Your task to perform on an android device: toggle location history Image 0: 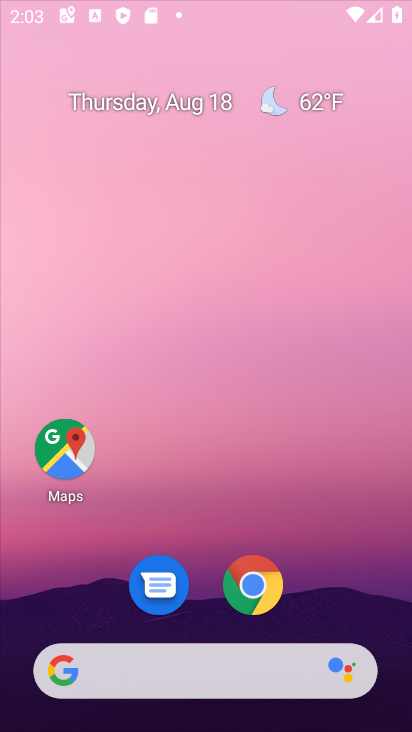
Step 0: press home button
Your task to perform on an android device: toggle location history Image 1: 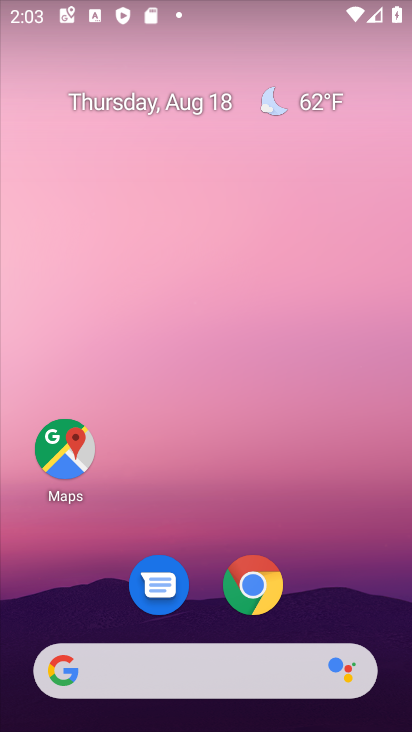
Step 1: drag from (320, 555) to (349, 28)
Your task to perform on an android device: toggle location history Image 2: 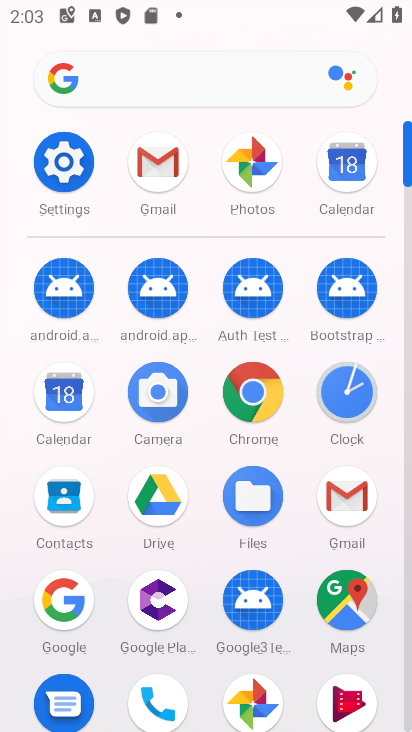
Step 2: click (64, 165)
Your task to perform on an android device: toggle location history Image 3: 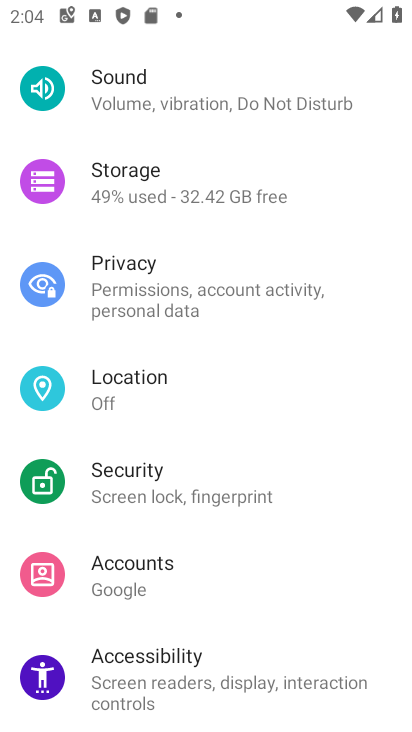
Step 3: click (179, 382)
Your task to perform on an android device: toggle location history Image 4: 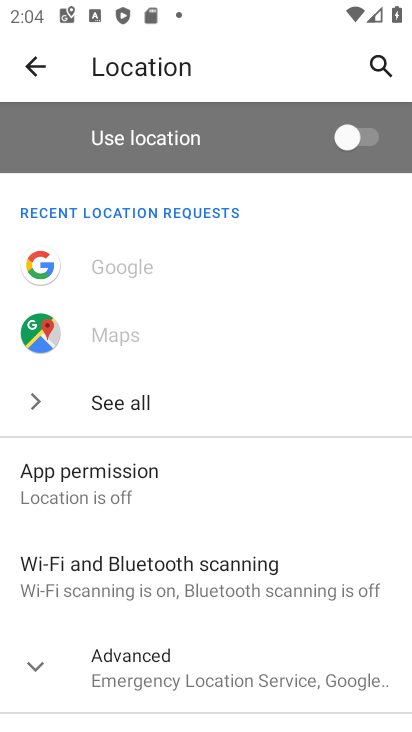
Step 4: drag from (230, 456) to (266, 121)
Your task to perform on an android device: toggle location history Image 5: 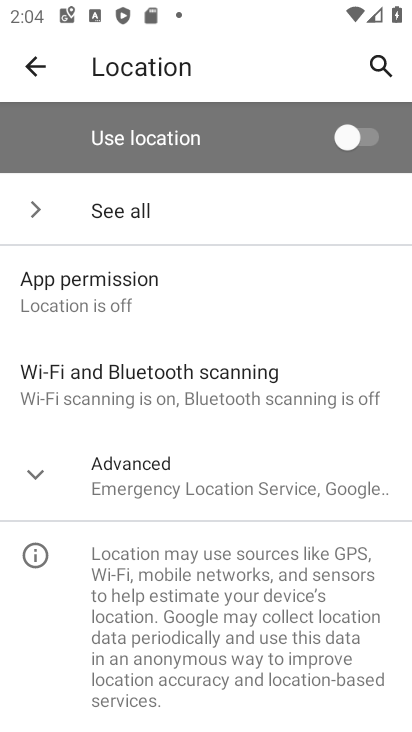
Step 5: click (36, 471)
Your task to perform on an android device: toggle location history Image 6: 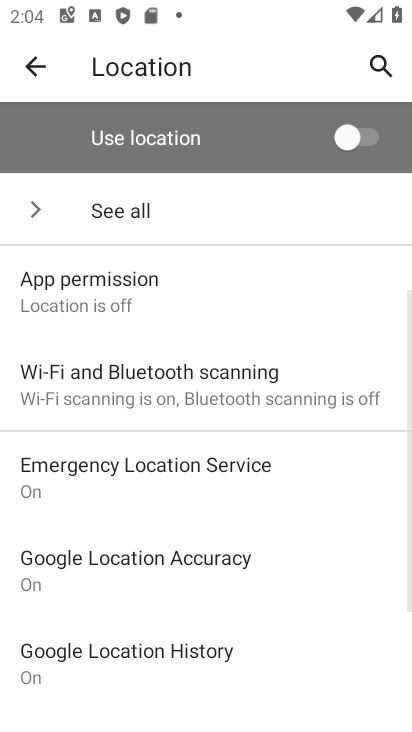
Step 6: drag from (200, 517) to (194, 314)
Your task to perform on an android device: toggle location history Image 7: 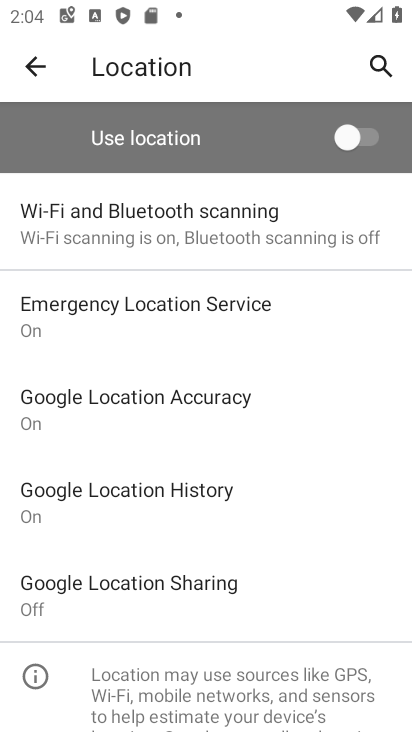
Step 7: click (189, 503)
Your task to perform on an android device: toggle location history Image 8: 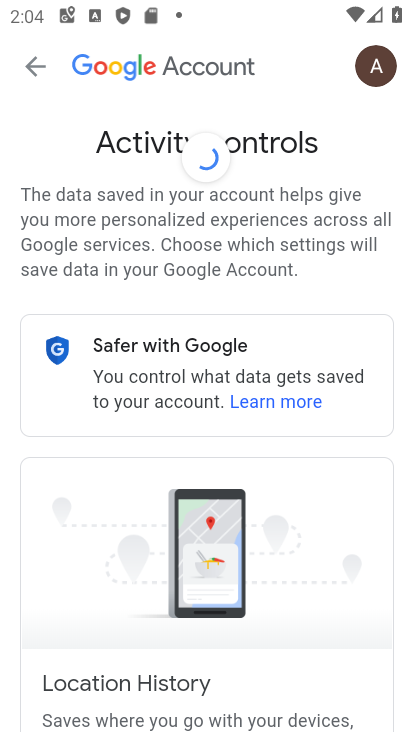
Step 8: drag from (245, 525) to (273, 148)
Your task to perform on an android device: toggle location history Image 9: 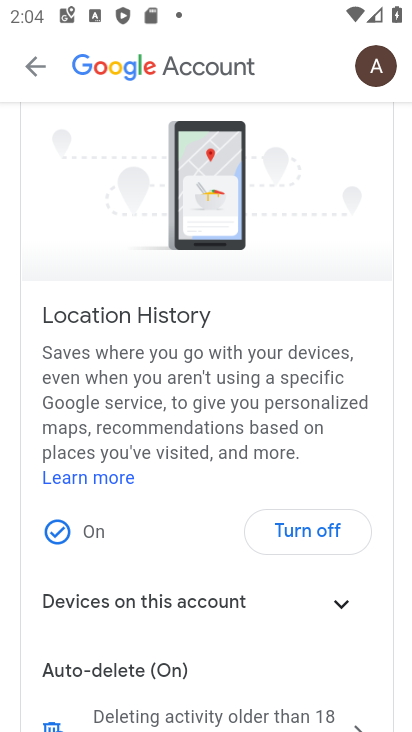
Step 9: click (319, 528)
Your task to perform on an android device: toggle location history Image 10: 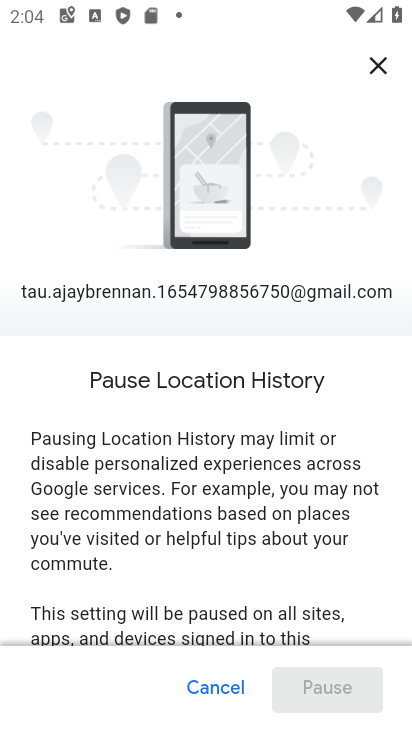
Step 10: drag from (323, 562) to (364, 52)
Your task to perform on an android device: toggle location history Image 11: 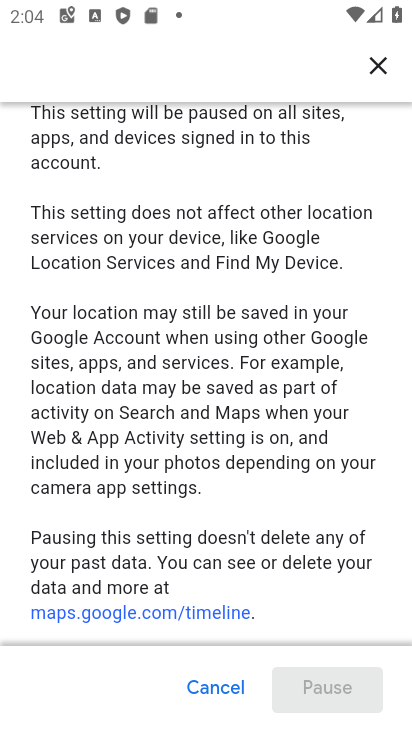
Step 11: drag from (327, 529) to (304, 127)
Your task to perform on an android device: toggle location history Image 12: 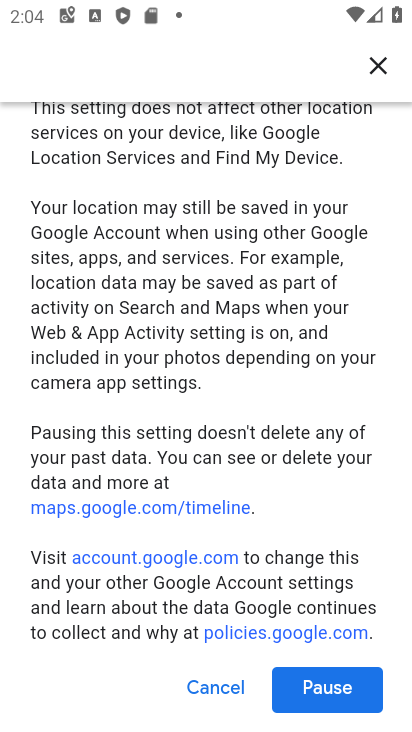
Step 12: click (299, 693)
Your task to perform on an android device: toggle location history Image 13: 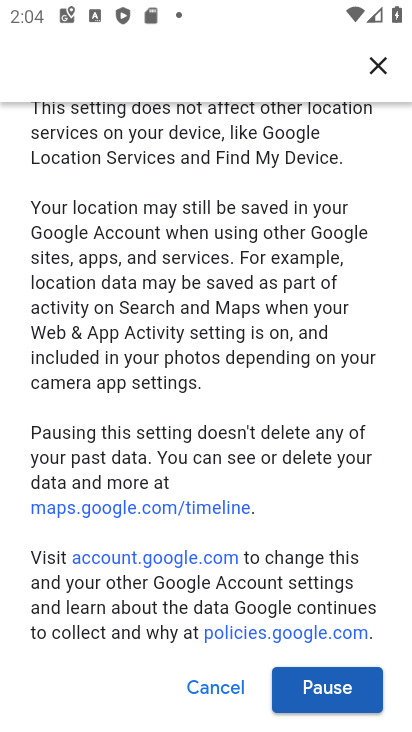
Step 13: click (350, 690)
Your task to perform on an android device: toggle location history Image 14: 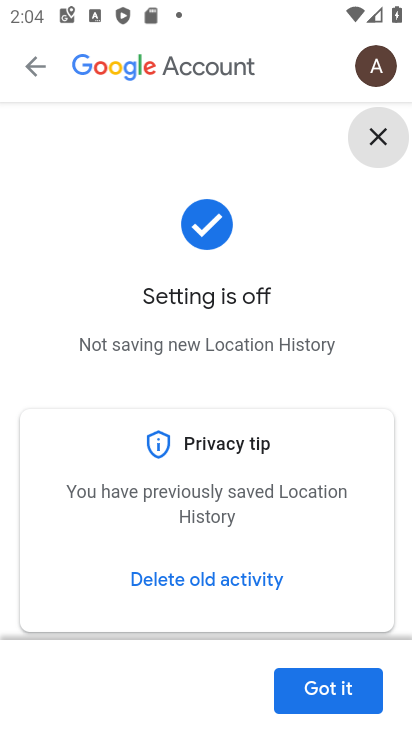
Step 14: click (328, 689)
Your task to perform on an android device: toggle location history Image 15: 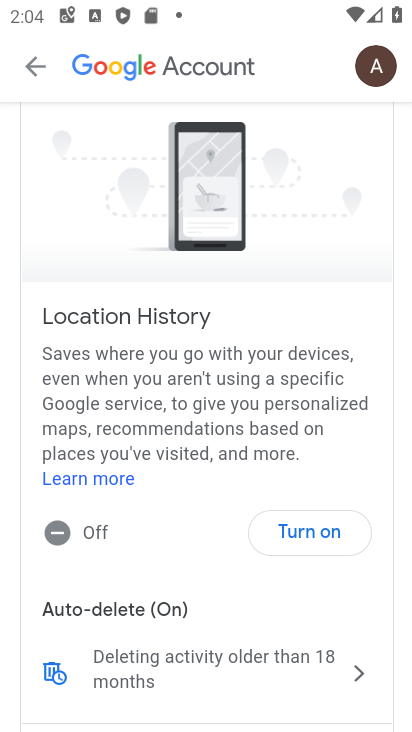
Step 15: task complete